Your task to perform on an android device: Open Youtube and go to "Your channel" Image 0: 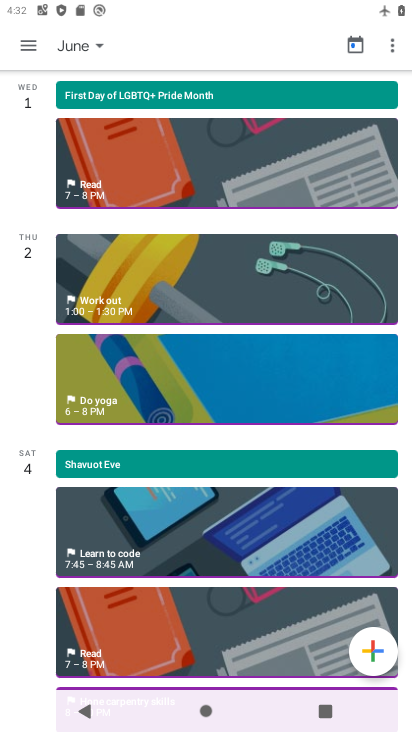
Step 0: press home button
Your task to perform on an android device: Open Youtube and go to "Your channel" Image 1: 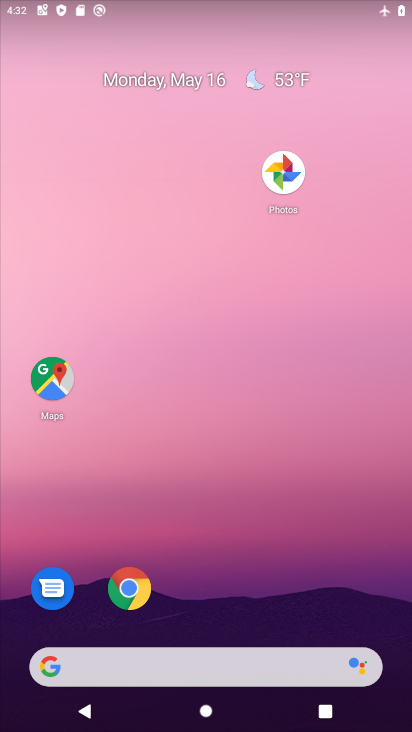
Step 1: drag from (290, 599) to (296, 59)
Your task to perform on an android device: Open Youtube and go to "Your channel" Image 2: 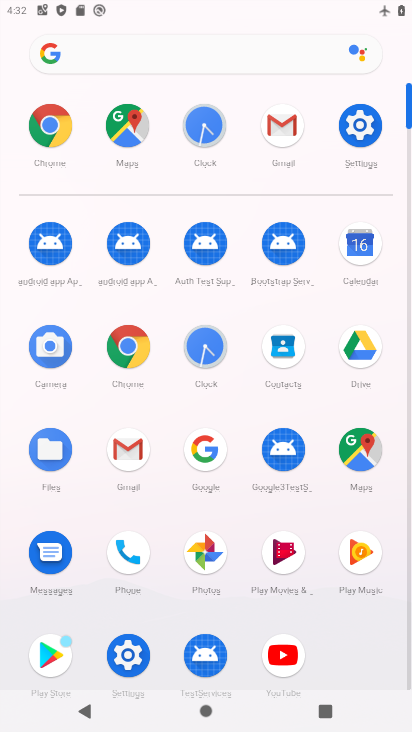
Step 2: click (270, 650)
Your task to perform on an android device: Open Youtube and go to "Your channel" Image 3: 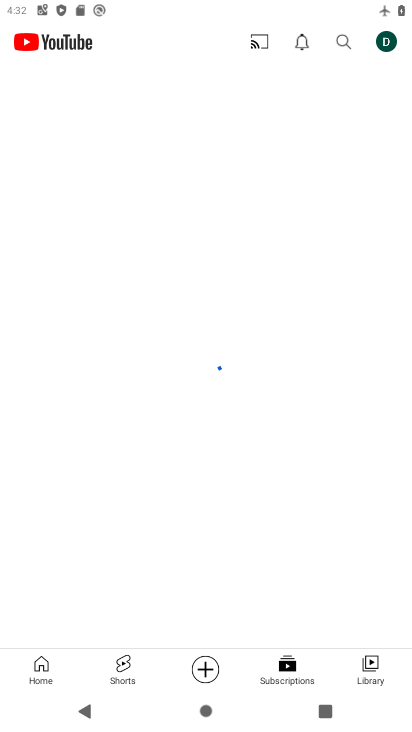
Step 3: click (345, 47)
Your task to perform on an android device: Open Youtube and go to "Your channel" Image 4: 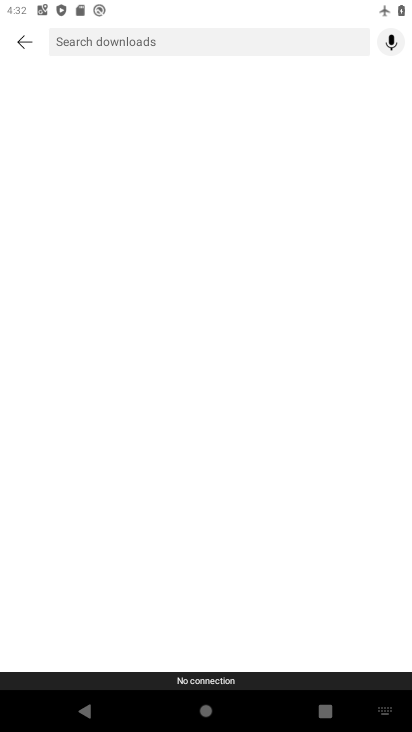
Step 4: drag from (332, 23) to (198, 658)
Your task to perform on an android device: Open Youtube and go to "Your channel" Image 5: 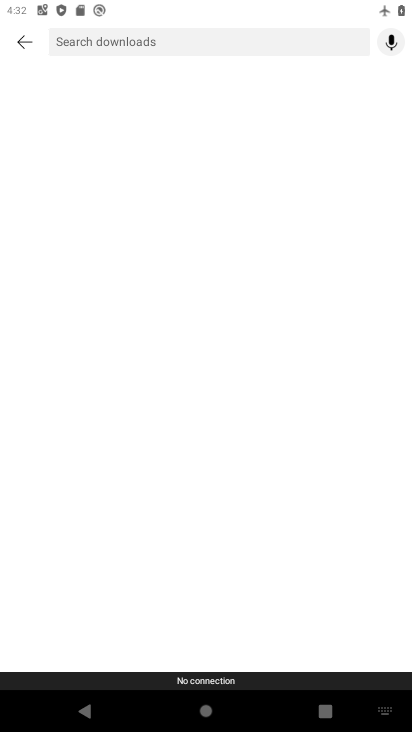
Step 5: drag from (255, 11) to (277, 450)
Your task to perform on an android device: Open Youtube and go to "Your channel" Image 6: 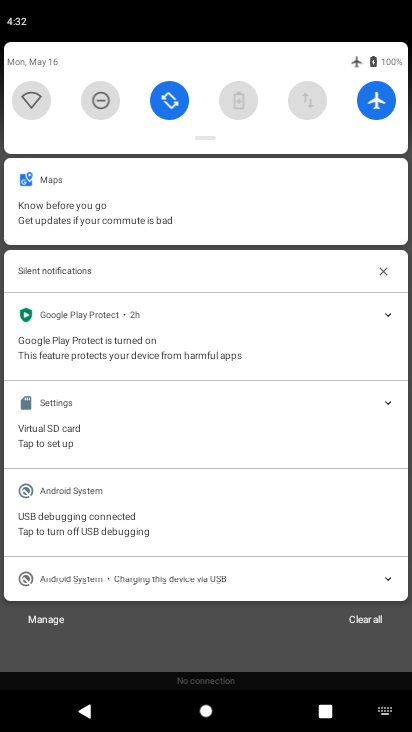
Step 6: click (385, 99)
Your task to perform on an android device: Open Youtube and go to "Your channel" Image 7: 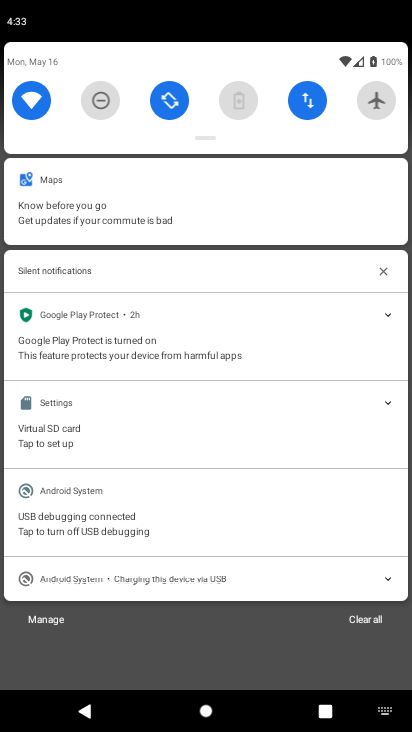
Step 7: task complete